Your task to perform on an android device: show emergency info Image 0: 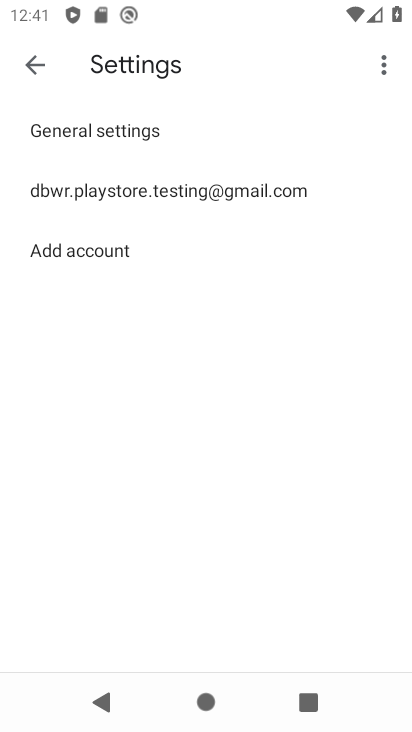
Step 0: press home button
Your task to perform on an android device: show emergency info Image 1: 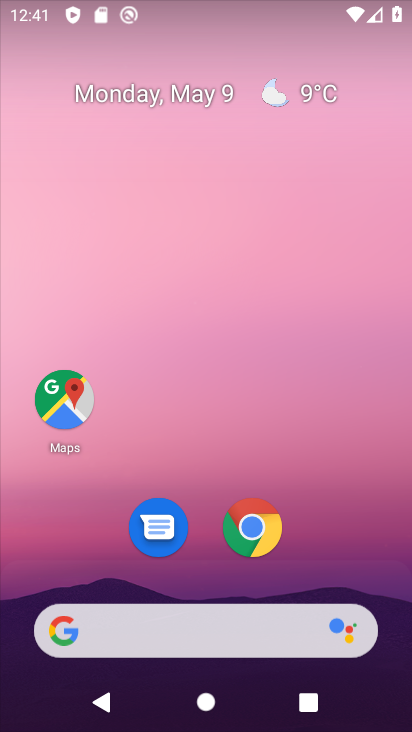
Step 1: drag from (203, 559) to (143, 100)
Your task to perform on an android device: show emergency info Image 2: 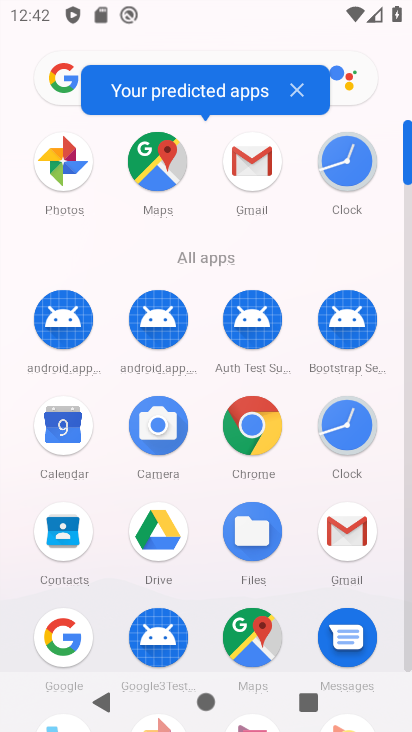
Step 2: drag from (209, 564) to (235, 318)
Your task to perform on an android device: show emergency info Image 3: 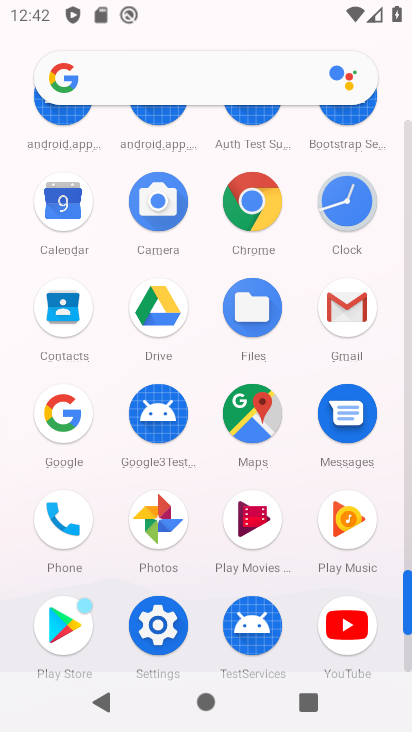
Step 3: click (170, 623)
Your task to perform on an android device: show emergency info Image 4: 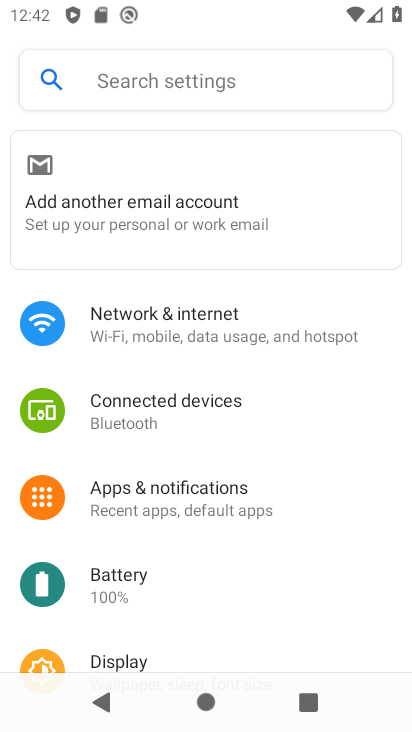
Step 4: drag from (243, 560) to (287, 166)
Your task to perform on an android device: show emergency info Image 5: 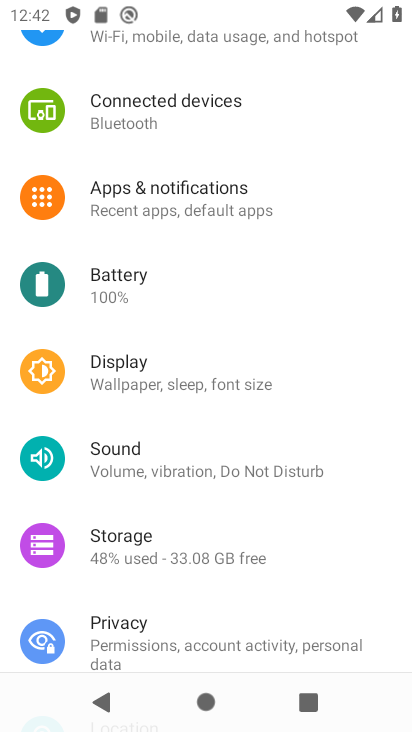
Step 5: drag from (215, 541) to (264, 198)
Your task to perform on an android device: show emergency info Image 6: 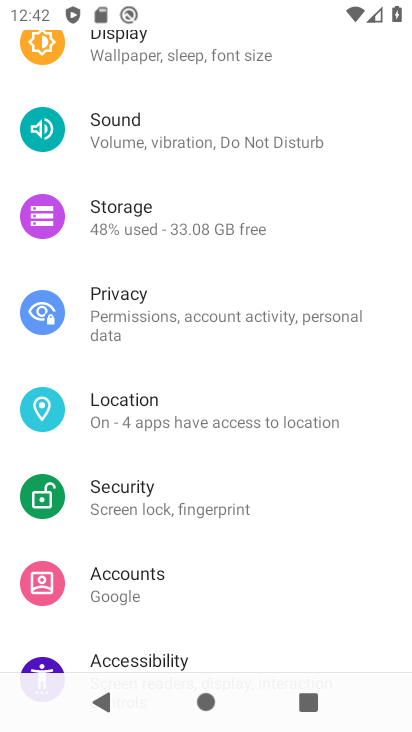
Step 6: drag from (248, 495) to (324, 188)
Your task to perform on an android device: show emergency info Image 7: 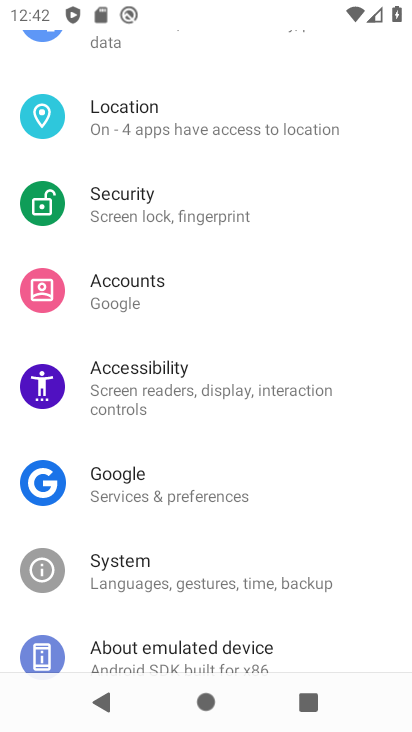
Step 7: drag from (224, 512) to (265, 305)
Your task to perform on an android device: show emergency info Image 8: 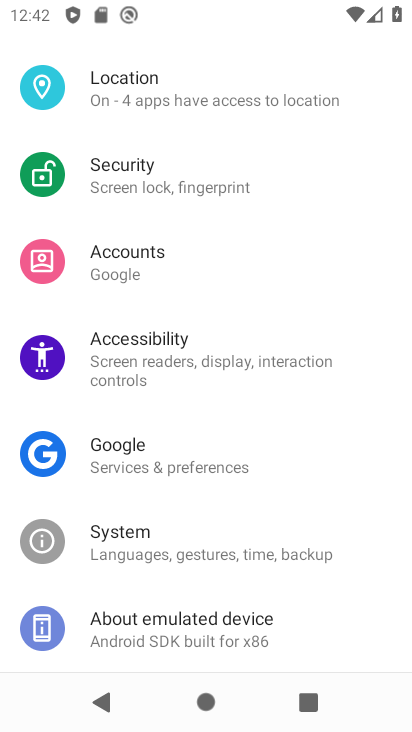
Step 8: click (156, 632)
Your task to perform on an android device: show emergency info Image 9: 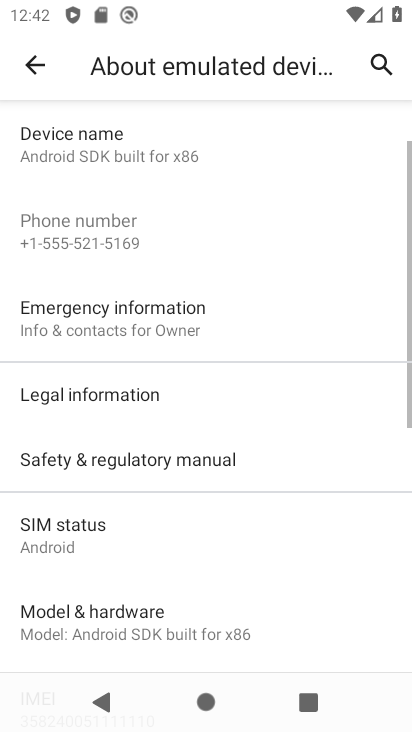
Step 9: click (112, 306)
Your task to perform on an android device: show emergency info Image 10: 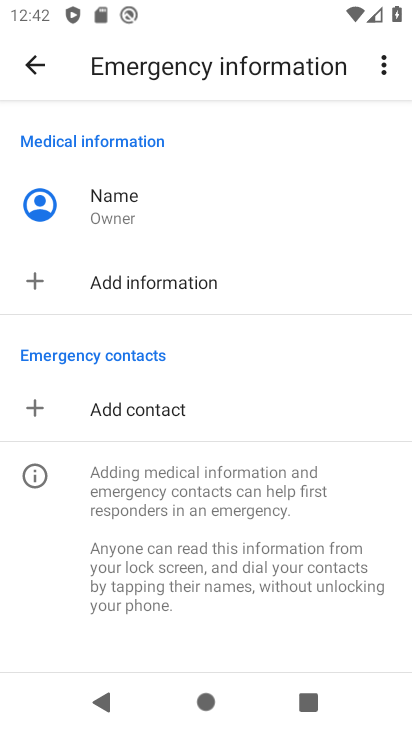
Step 10: task complete